Your task to perform on an android device: turn off wifi Image 0: 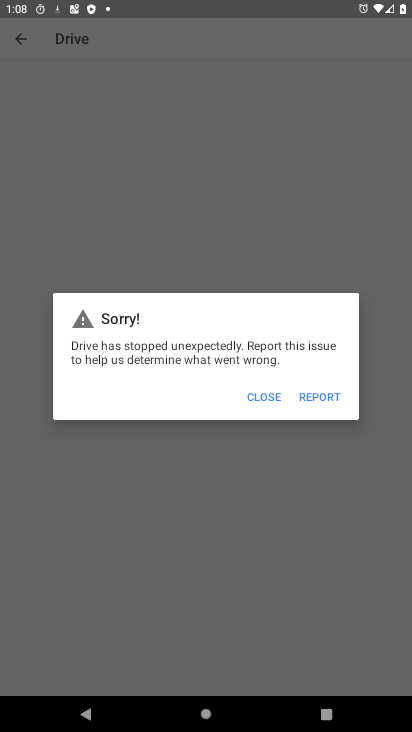
Step 0: press home button
Your task to perform on an android device: turn off wifi Image 1: 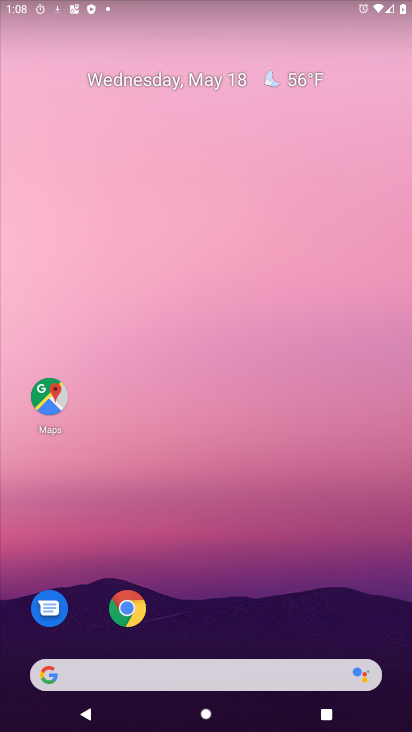
Step 1: drag from (279, 679) to (166, 122)
Your task to perform on an android device: turn off wifi Image 2: 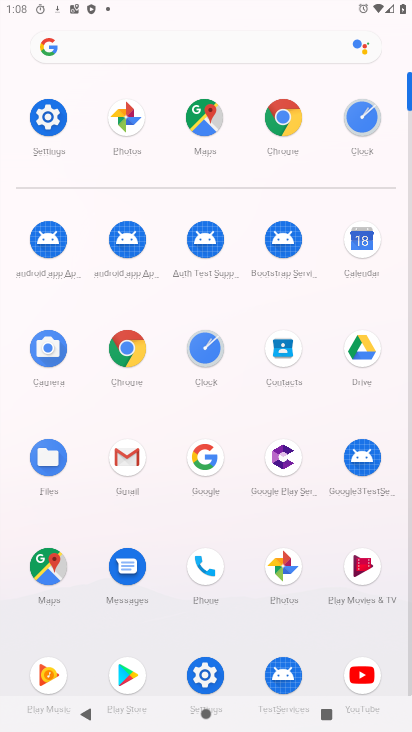
Step 2: click (62, 120)
Your task to perform on an android device: turn off wifi Image 3: 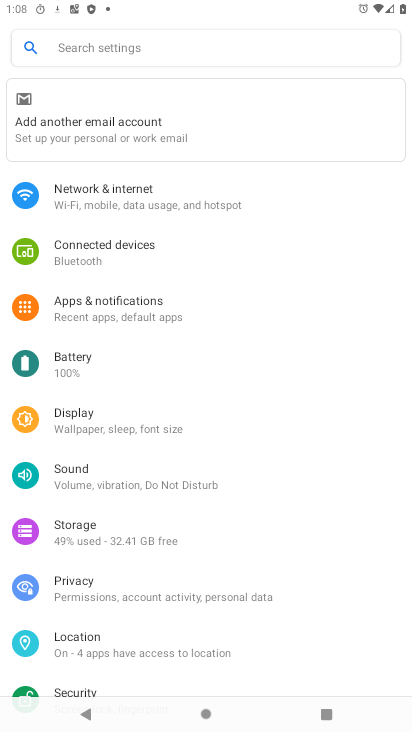
Step 3: click (118, 207)
Your task to perform on an android device: turn off wifi Image 4: 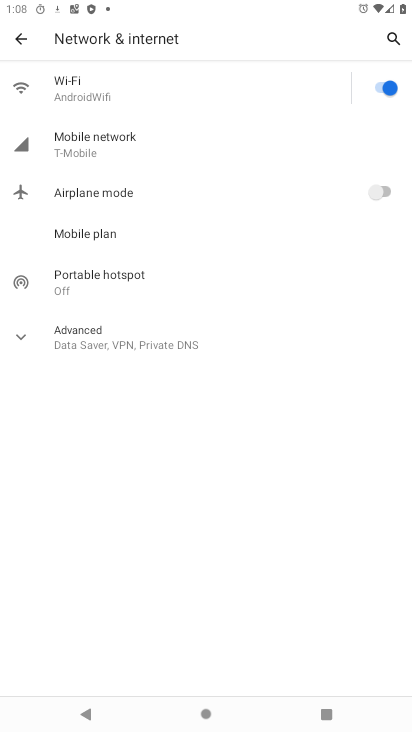
Step 4: click (135, 95)
Your task to perform on an android device: turn off wifi Image 5: 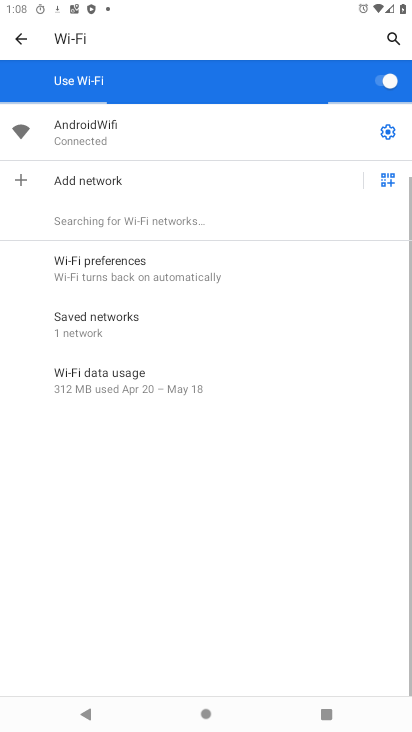
Step 5: click (379, 72)
Your task to perform on an android device: turn off wifi Image 6: 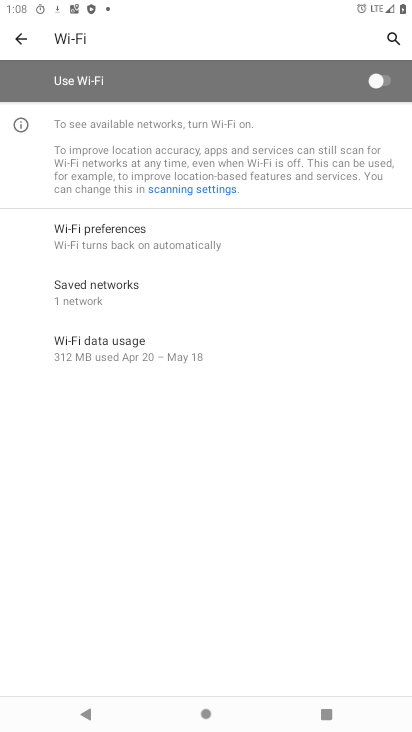
Step 6: task complete